Your task to perform on an android device: Open ESPN.com Image 0: 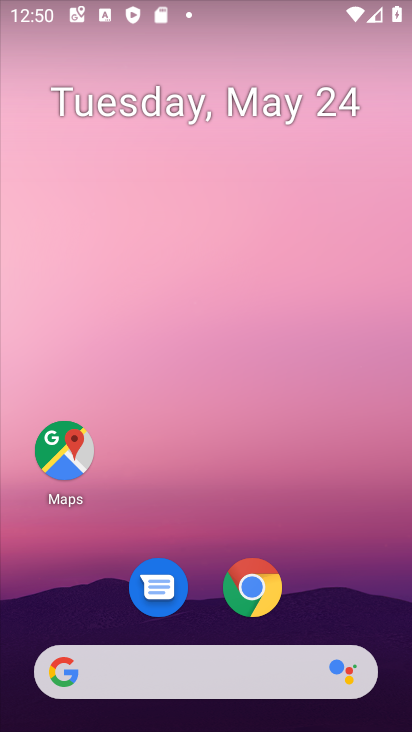
Step 0: click (230, 661)
Your task to perform on an android device: Open ESPN.com Image 1: 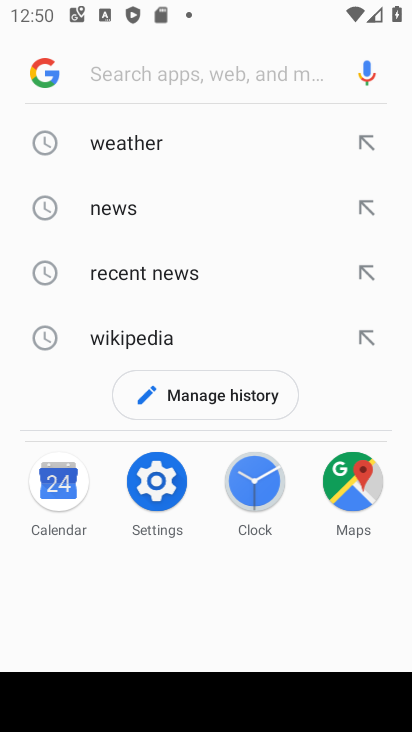
Step 1: type "espn.com"
Your task to perform on an android device: Open ESPN.com Image 2: 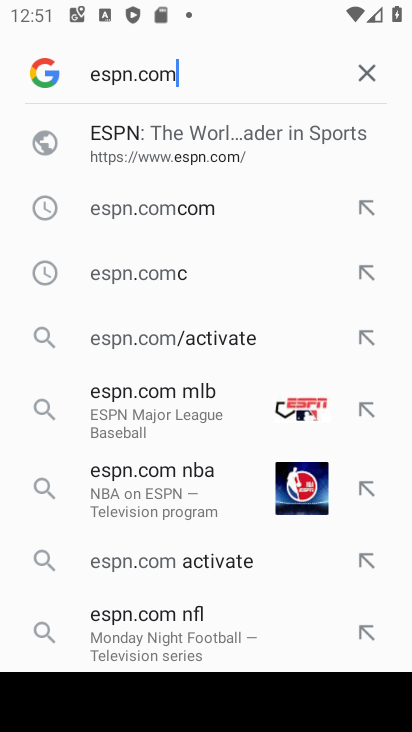
Step 2: click (216, 147)
Your task to perform on an android device: Open ESPN.com Image 3: 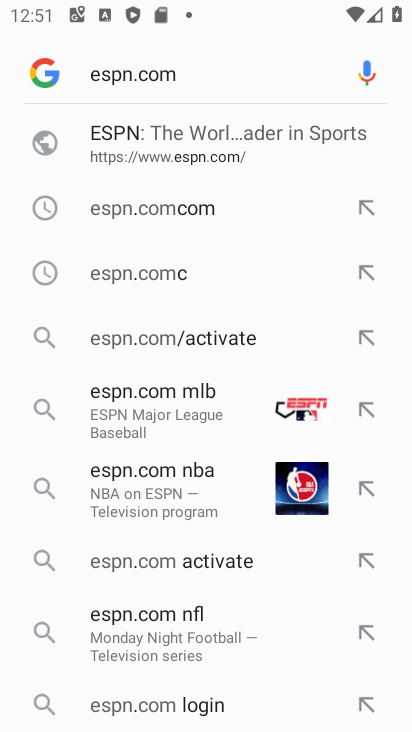
Step 3: task complete